Your task to perform on an android device: turn off wifi Image 0: 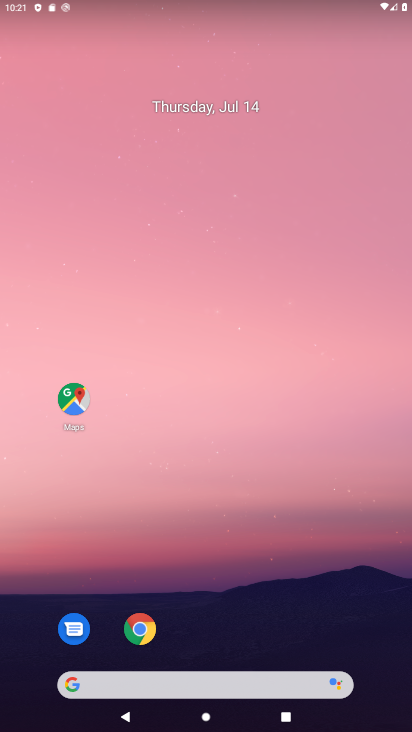
Step 0: drag from (261, 641) to (337, 51)
Your task to perform on an android device: turn off wifi Image 1: 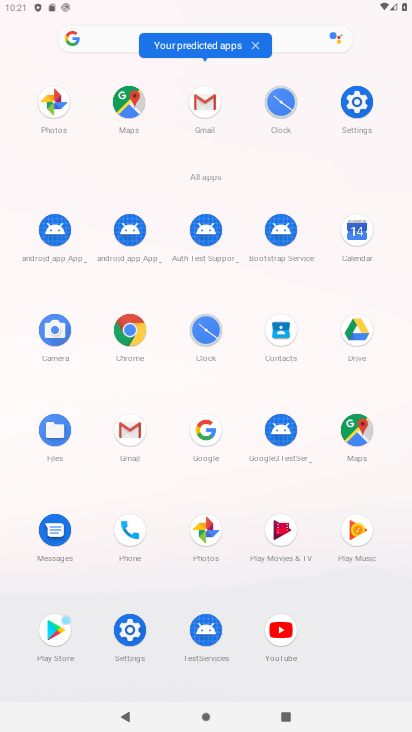
Step 1: click (127, 640)
Your task to perform on an android device: turn off wifi Image 2: 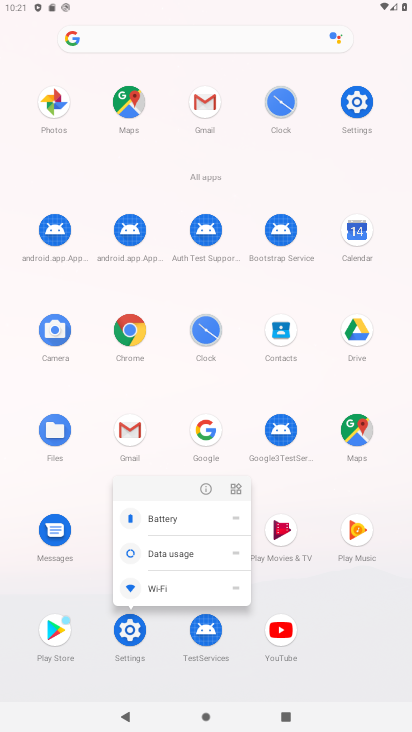
Step 2: click (128, 635)
Your task to perform on an android device: turn off wifi Image 3: 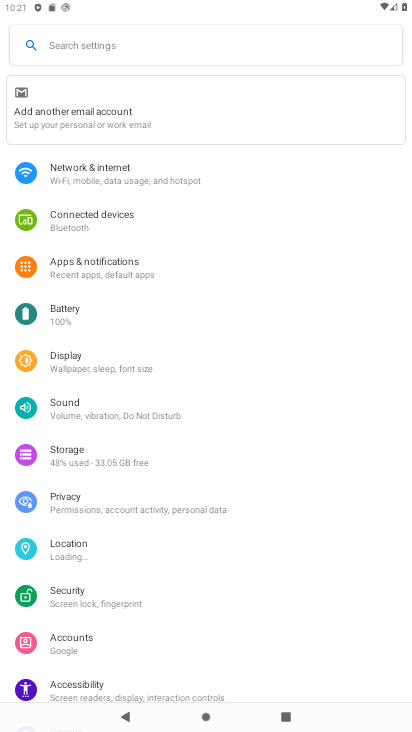
Step 3: click (186, 183)
Your task to perform on an android device: turn off wifi Image 4: 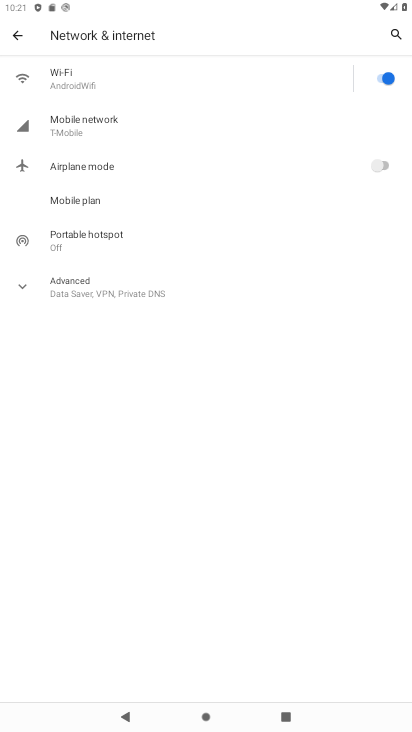
Step 4: click (375, 70)
Your task to perform on an android device: turn off wifi Image 5: 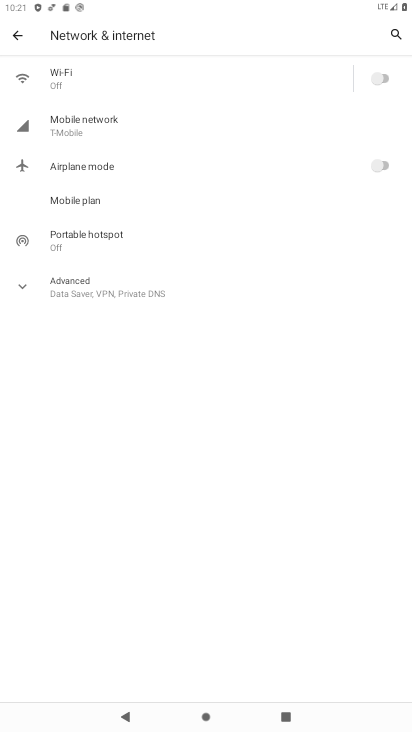
Step 5: task complete